Your task to perform on an android device: turn on showing notifications on the lock screen Image 0: 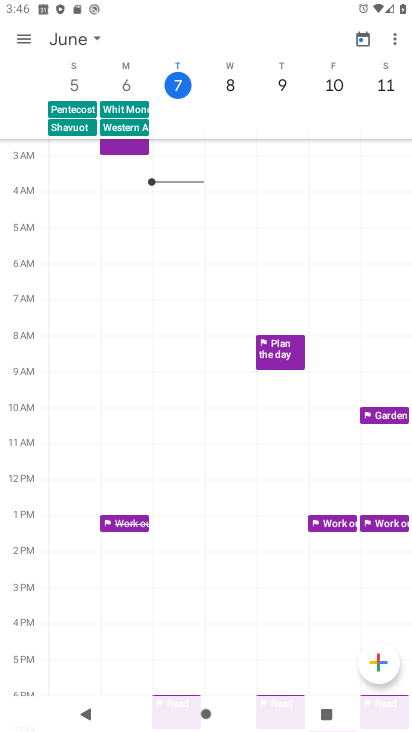
Step 0: press home button
Your task to perform on an android device: turn on showing notifications on the lock screen Image 1: 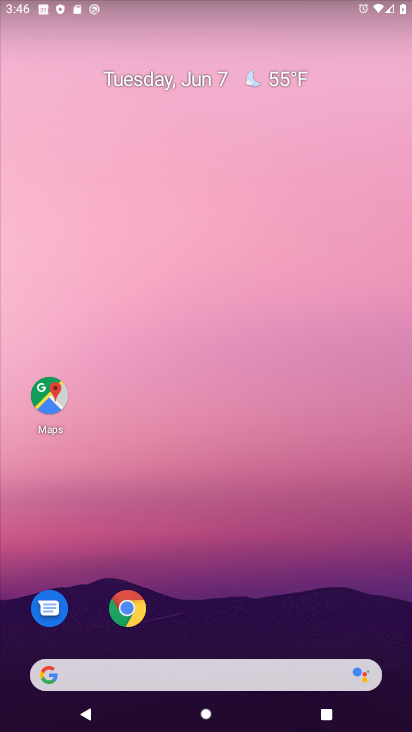
Step 1: drag from (209, 622) to (358, 262)
Your task to perform on an android device: turn on showing notifications on the lock screen Image 2: 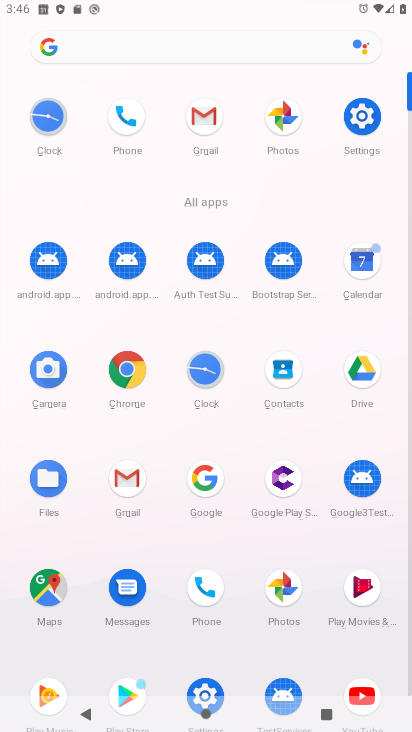
Step 2: click (372, 146)
Your task to perform on an android device: turn on showing notifications on the lock screen Image 3: 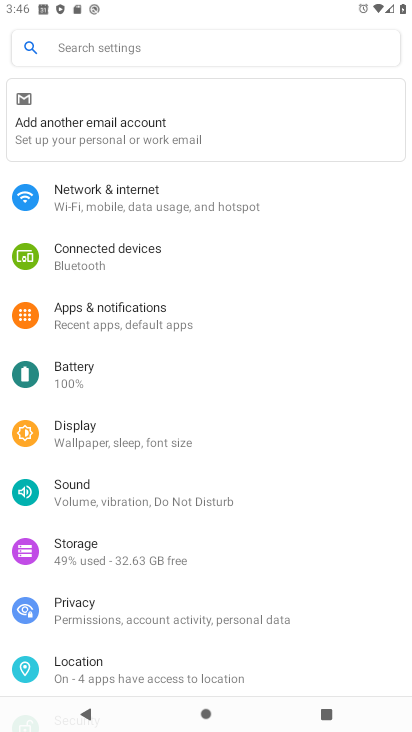
Step 3: click (137, 322)
Your task to perform on an android device: turn on showing notifications on the lock screen Image 4: 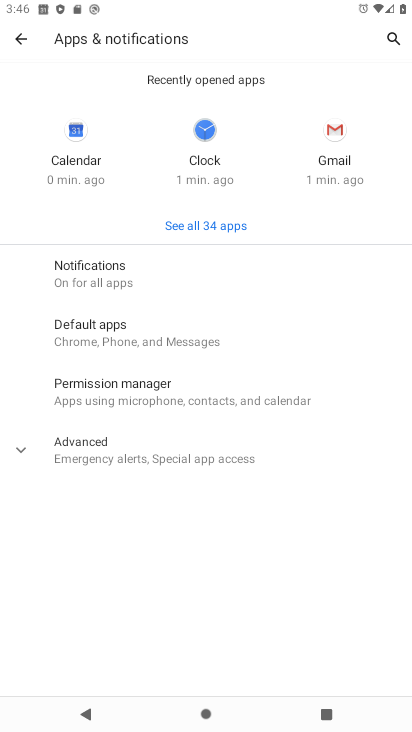
Step 4: click (35, 278)
Your task to perform on an android device: turn on showing notifications on the lock screen Image 5: 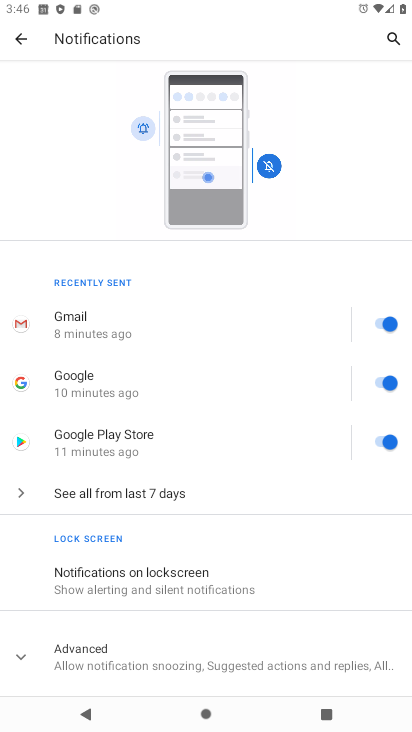
Step 5: click (153, 581)
Your task to perform on an android device: turn on showing notifications on the lock screen Image 6: 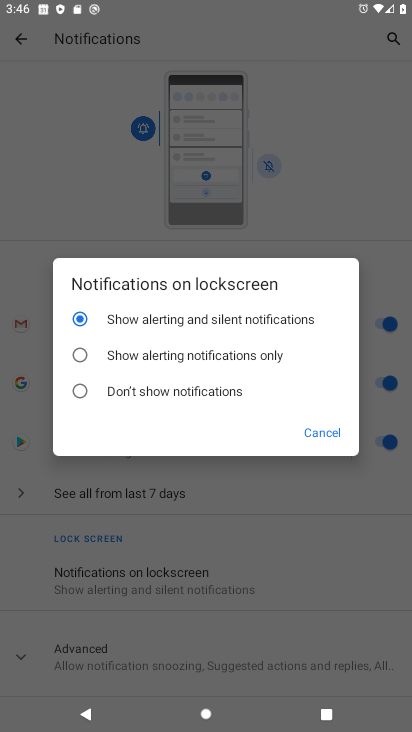
Step 6: click (137, 319)
Your task to perform on an android device: turn on showing notifications on the lock screen Image 7: 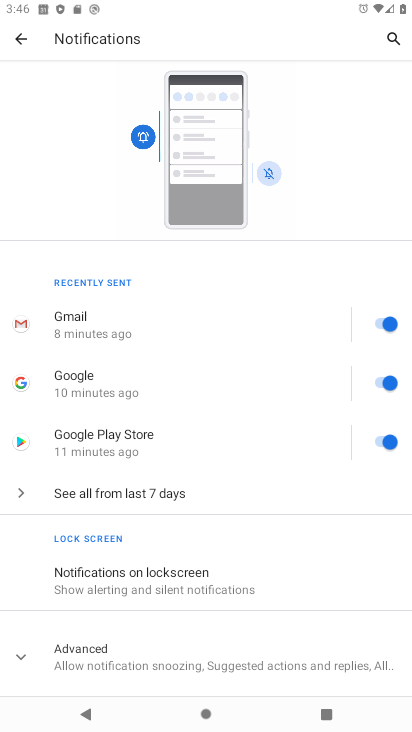
Step 7: task complete